Your task to perform on an android device: open app "WhatsApp Messenger" Image 0: 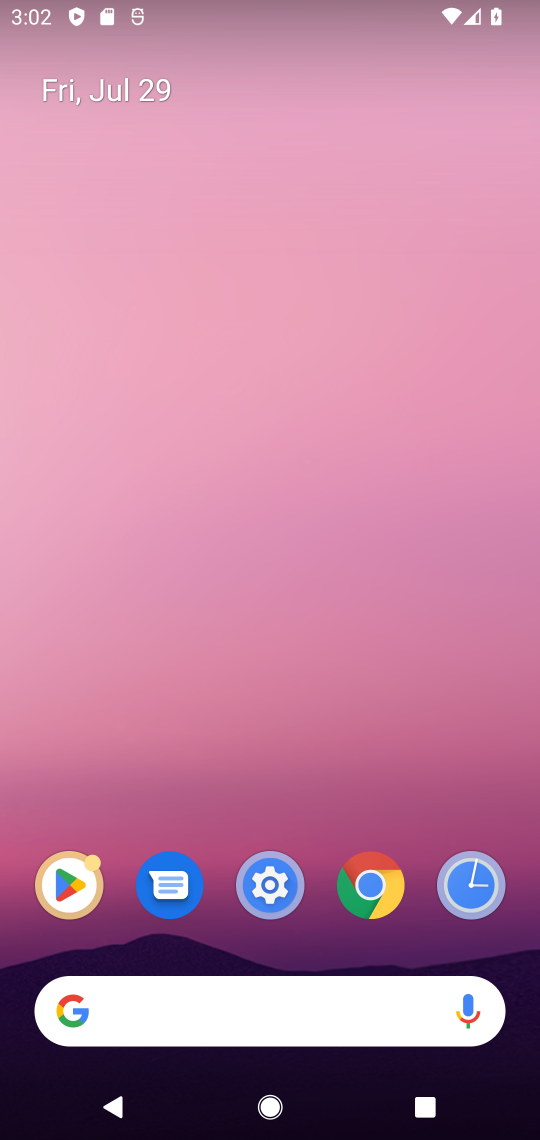
Step 0: click (77, 891)
Your task to perform on an android device: open app "WhatsApp Messenger" Image 1: 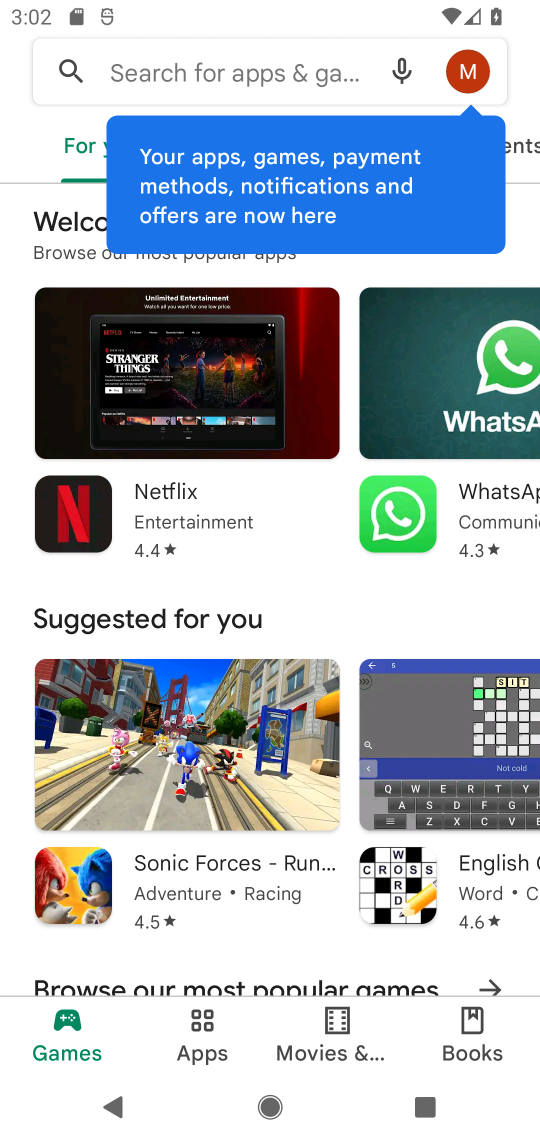
Step 1: drag from (425, 384) to (82, 383)
Your task to perform on an android device: open app "WhatsApp Messenger" Image 2: 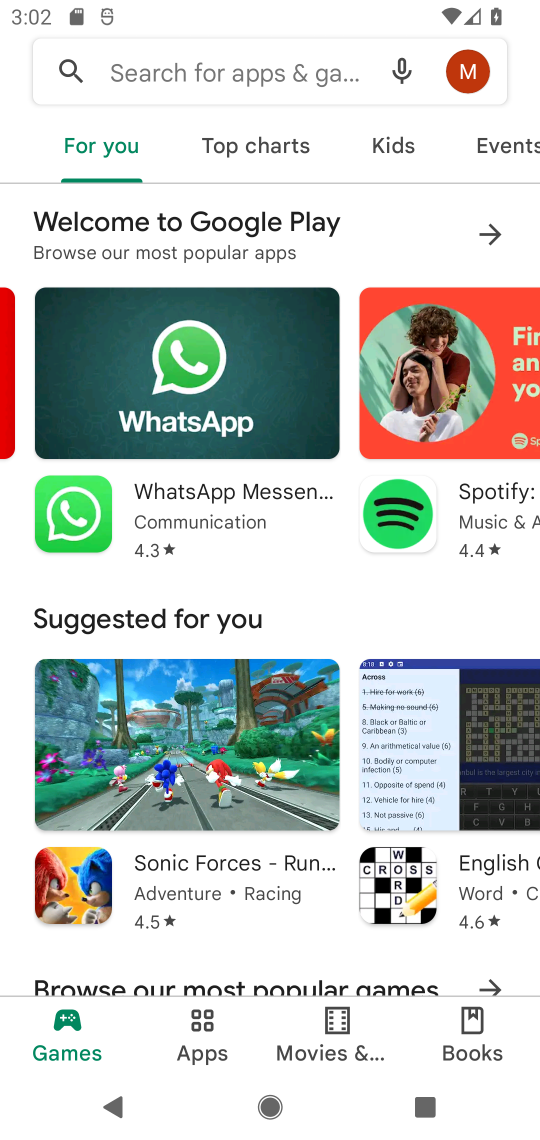
Step 2: click (172, 396)
Your task to perform on an android device: open app "WhatsApp Messenger" Image 3: 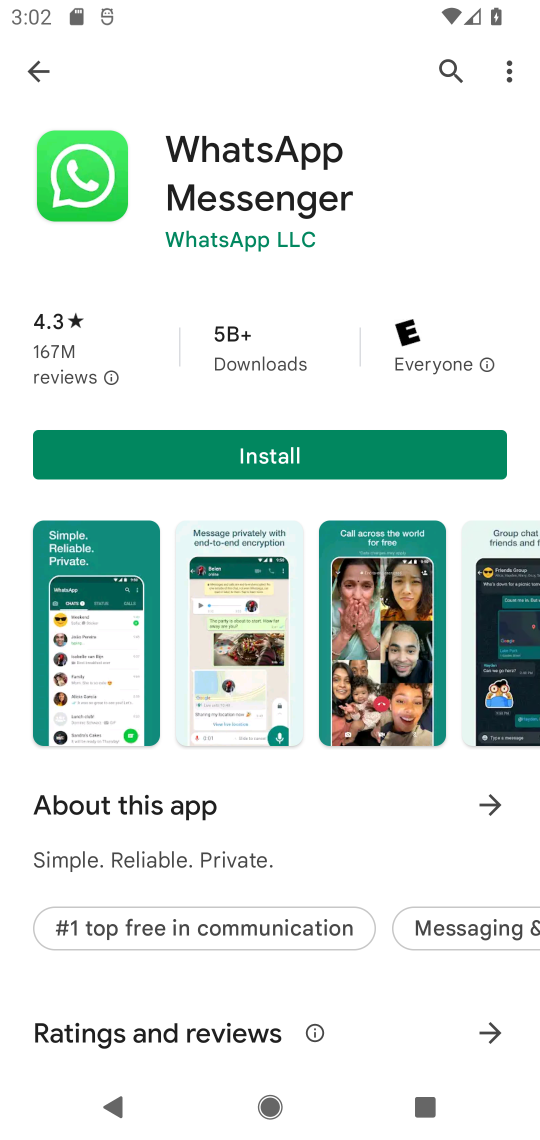
Step 3: click (198, 460)
Your task to perform on an android device: open app "WhatsApp Messenger" Image 4: 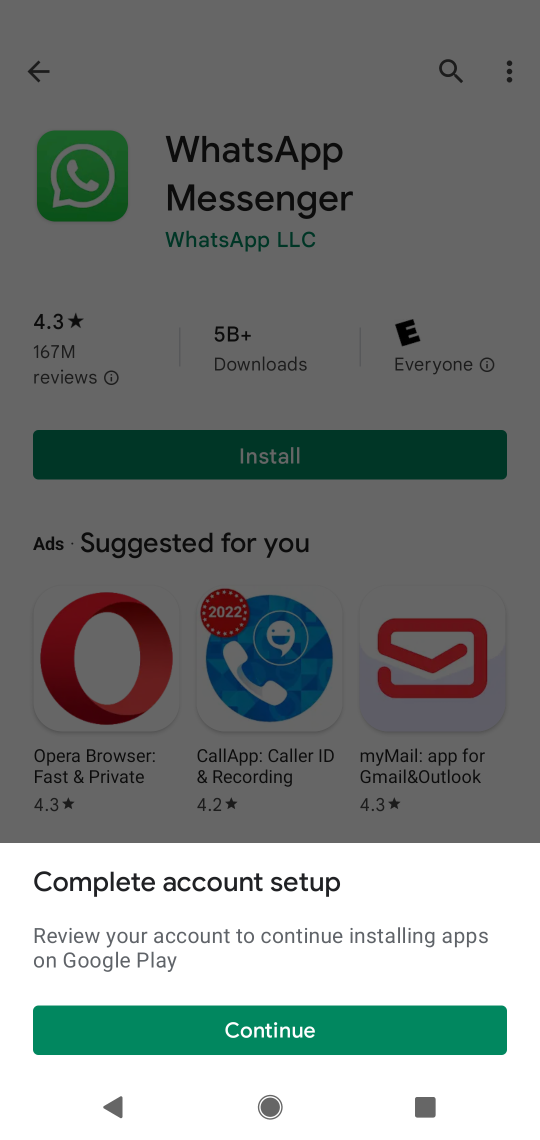
Step 4: click (162, 1021)
Your task to perform on an android device: open app "WhatsApp Messenger" Image 5: 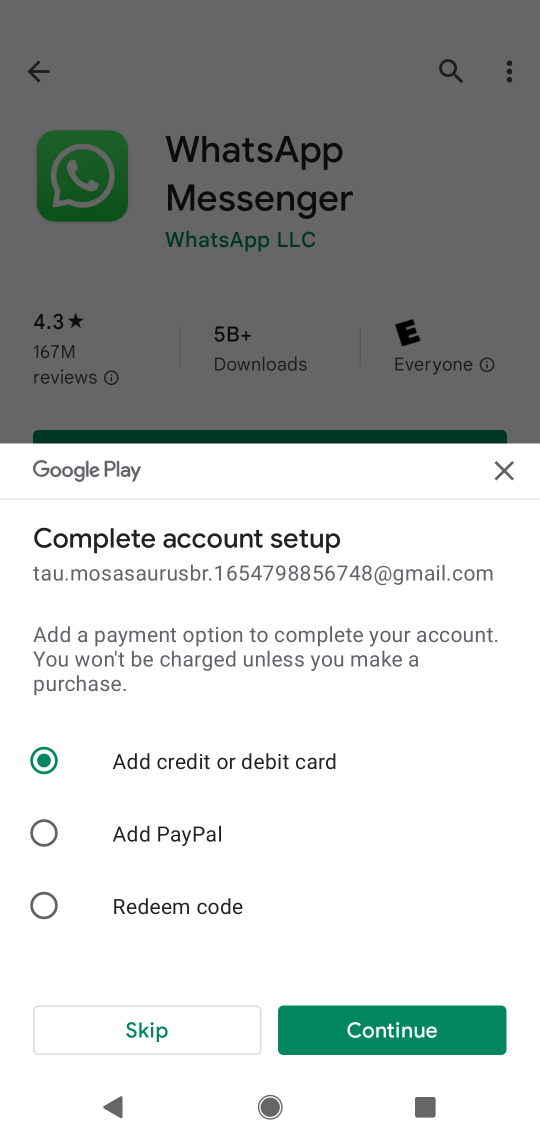
Step 5: click (161, 1026)
Your task to perform on an android device: open app "WhatsApp Messenger" Image 6: 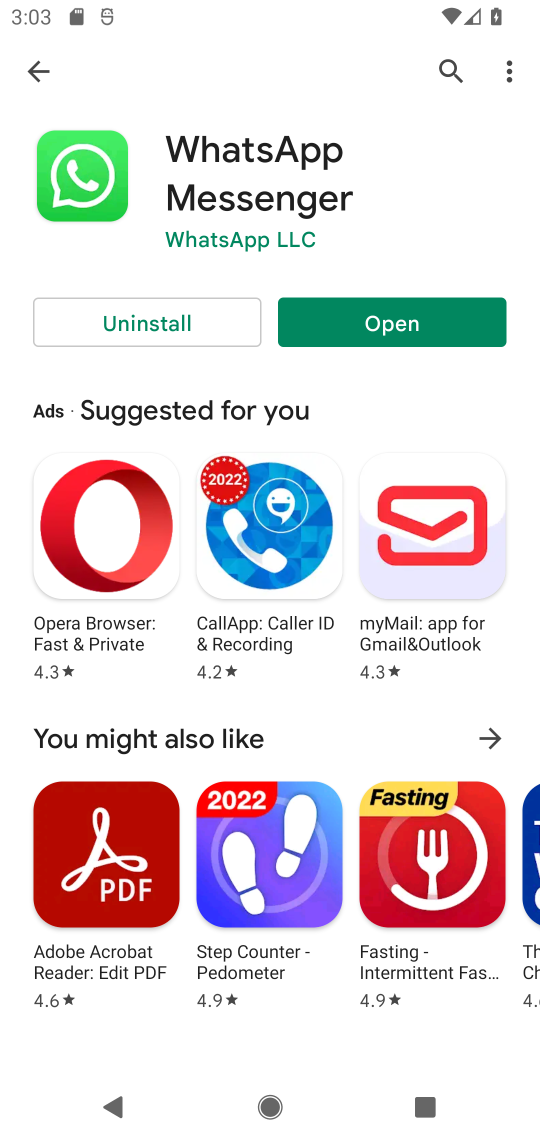
Step 6: click (375, 323)
Your task to perform on an android device: open app "WhatsApp Messenger" Image 7: 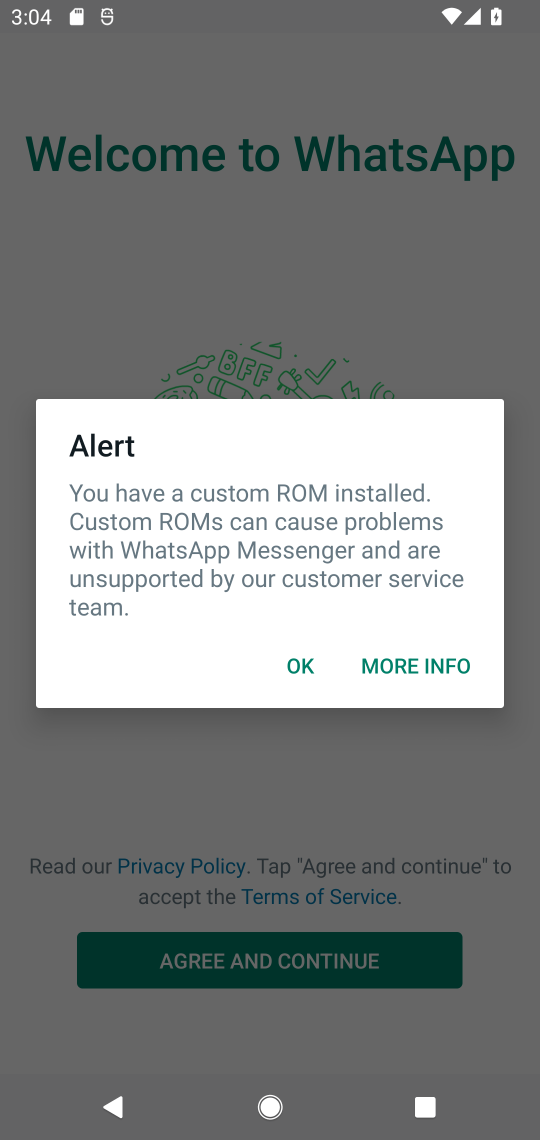
Step 7: task complete